Your task to perform on an android device: move a message to another label in the gmail app Image 0: 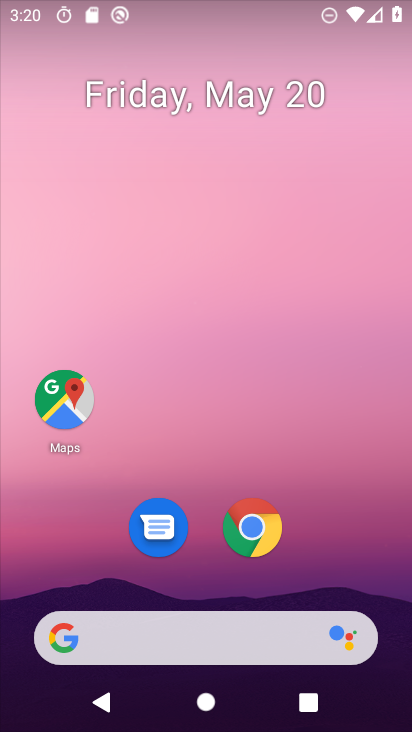
Step 0: drag from (178, 585) to (250, 64)
Your task to perform on an android device: move a message to another label in the gmail app Image 1: 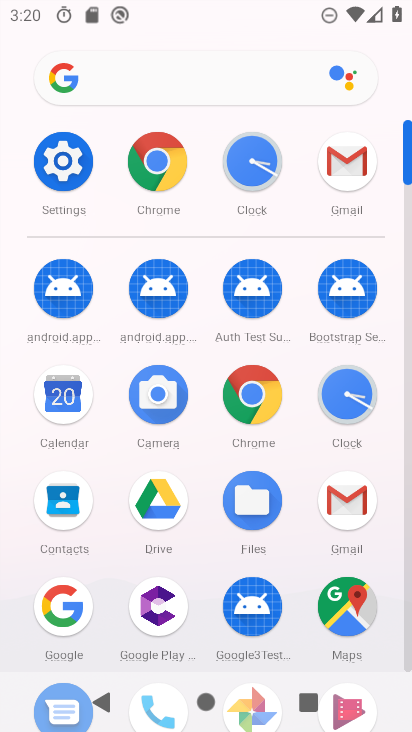
Step 1: click (339, 159)
Your task to perform on an android device: move a message to another label in the gmail app Image 2: 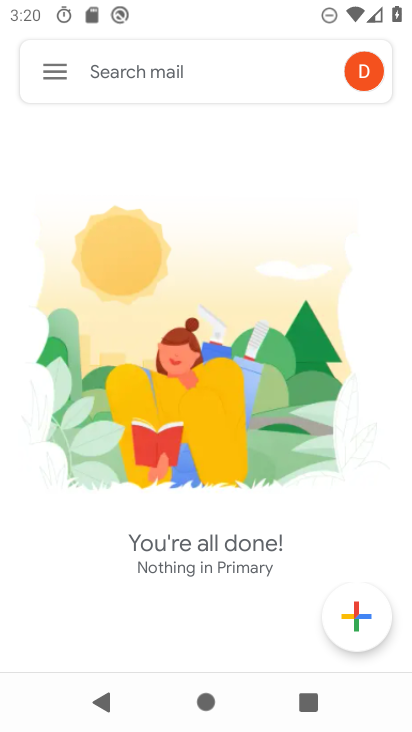
Step 2: click (56, 70)
Your task to perform on an android device: move a message to another label in the gmail app Image 3: 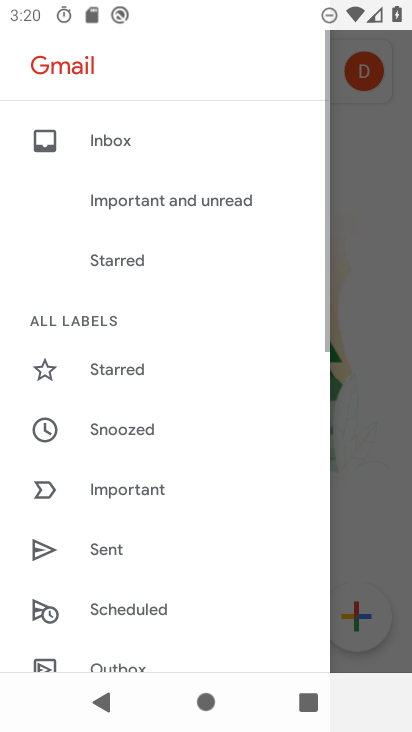
Step 3: drag from (140, 628) to (206, 258)
Your task to perform on an android device: move a message to another label in the gmail app Image 4: 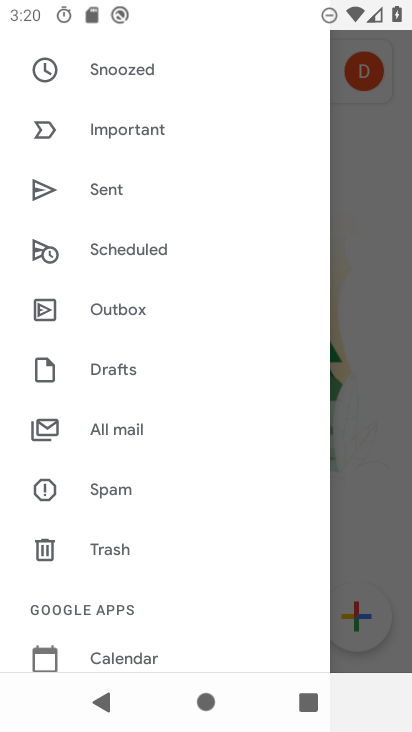
Step 4: click (131, 433)
Your task to perform on an android device: move a message to another label in the gmail app Image 5: 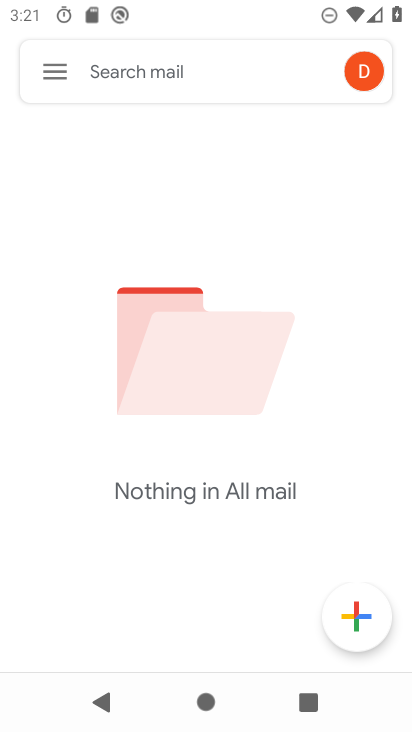
Step 5: task complete